Your task to perform on an android device: add a label to a message in the gmail app Image 0: 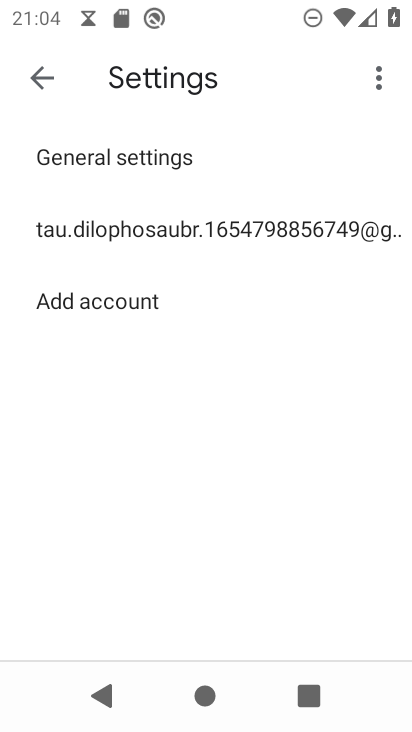
Step 0: click (41, 71)
Your task to perform on an android device: add a label to a message in the gmail app Image 1: 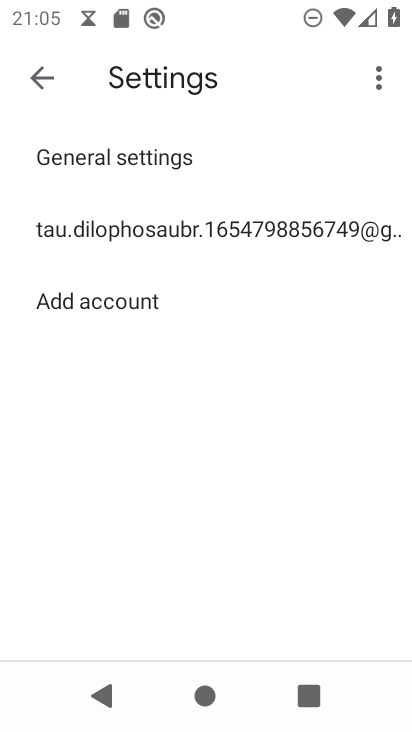
Step 1: click (44, 75)
Your task to perform on an android device: add a label to a message in the gmail app Image 2: 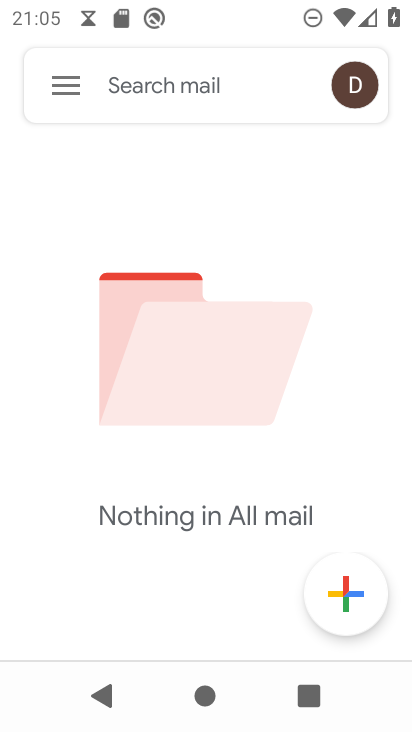
Step 2: task complete